Your task to perform on an android device: see tabs open on other devices in the chrome app Image 0: 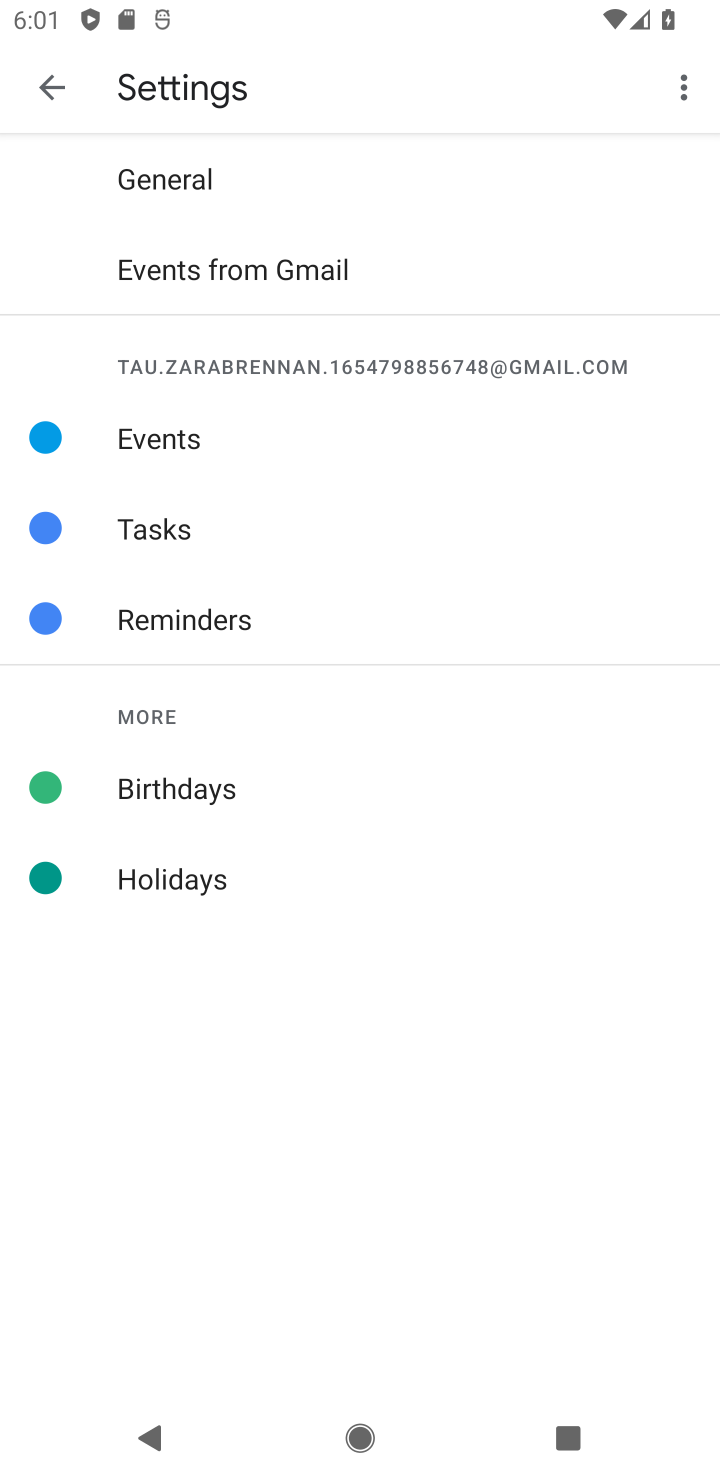
Step 0: press home button
Your task to perform on an android device: see tabs open on other devices in the chrome app Image 1: 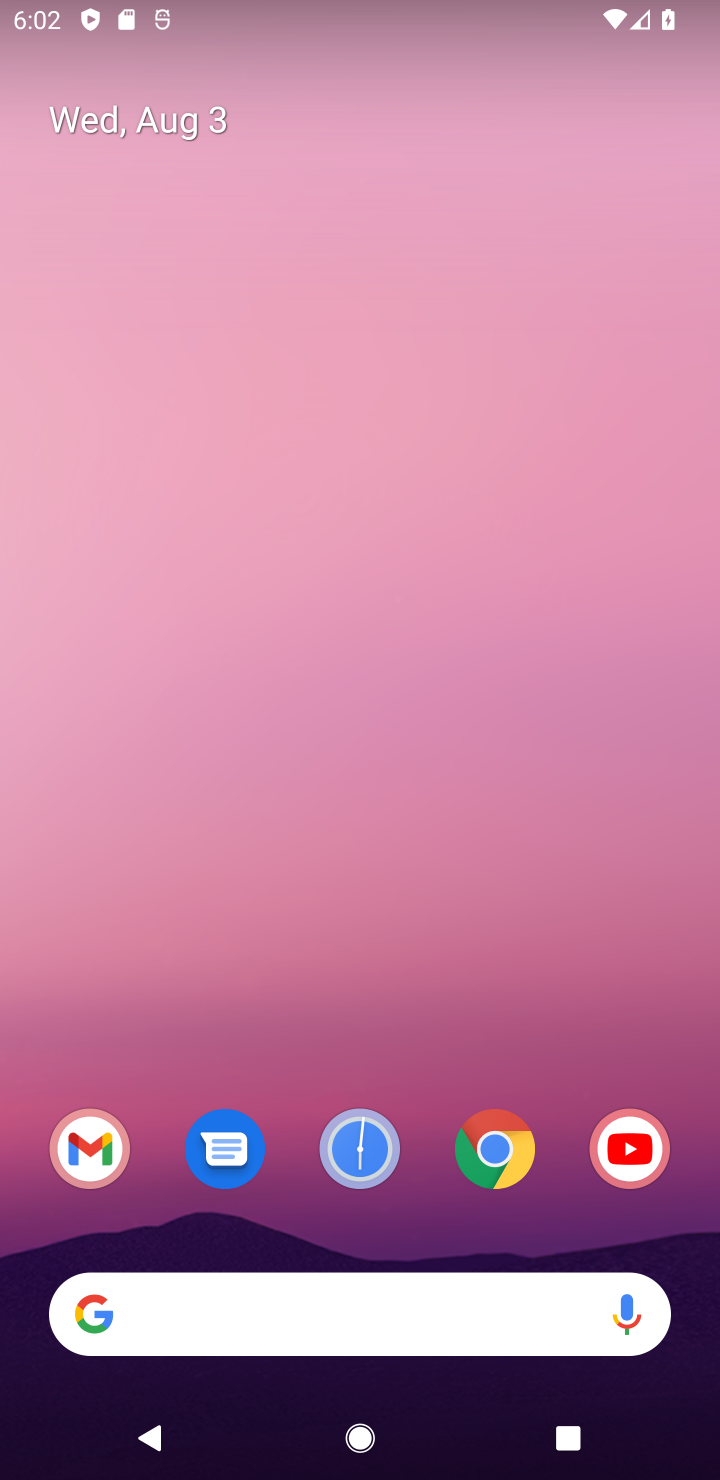
Step 1: click (484, 1148)
Your task to perform on an android device: see tabs open on other devices in the chrome app Image 2: 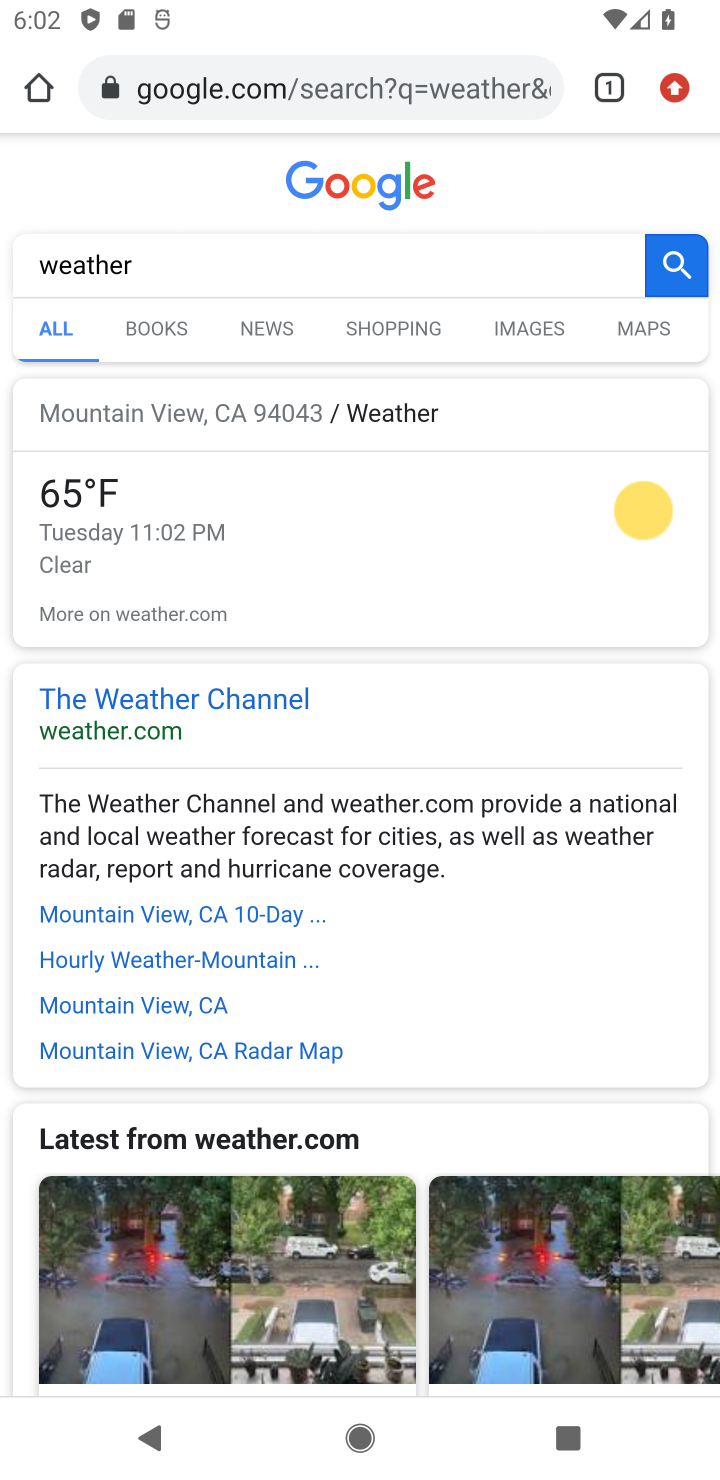
Step 2: task complete